Your task to perform on an android device: Open Google Chrome Image 0: 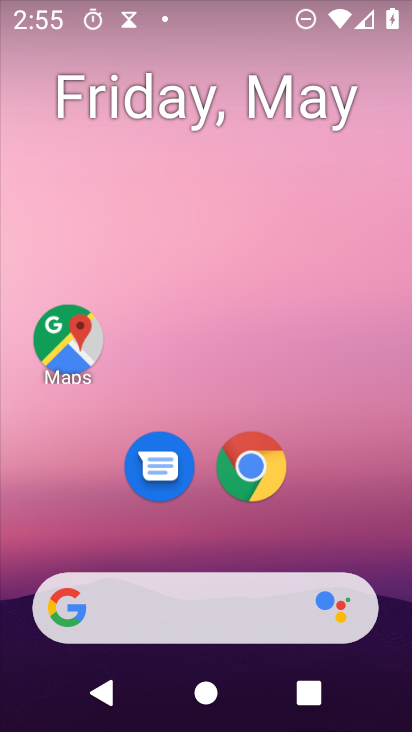
Step 0: drag from (362, 532) to (335, 69)
Your task to perform on an android device: Open Google Chrome Image 1: 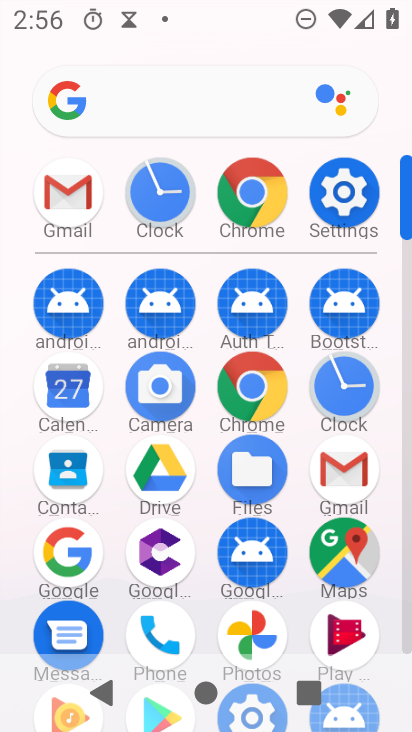
Step 1: click (254, 198)
Your task to perform on an android device: Open Google Chrome Image 2: 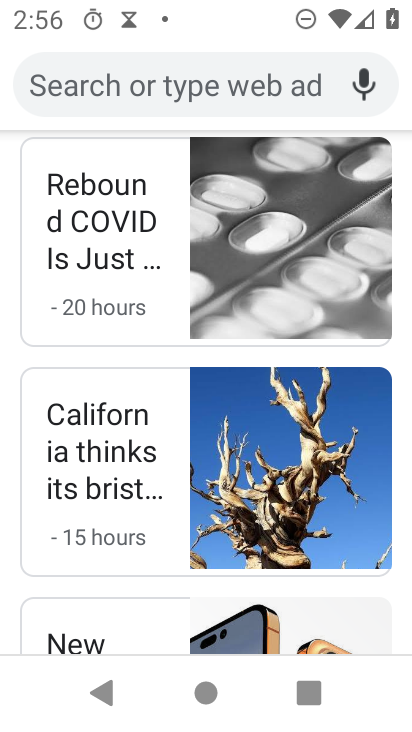
Step 2: task complete